Your task to perform on an android device: find photos in the google photos app Image 0: 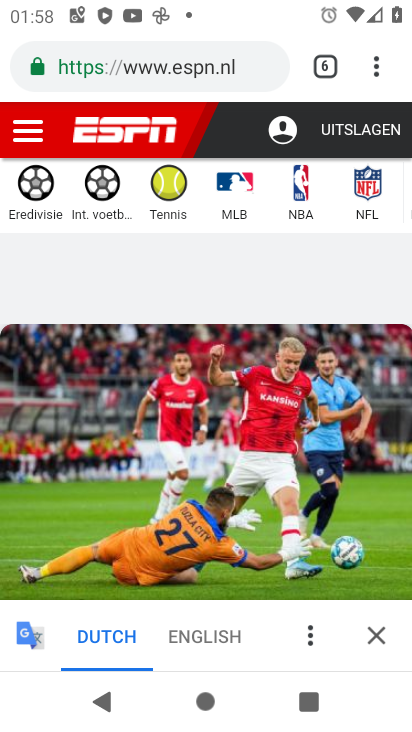
Step 0: press home button
Your task to perform on an android device: find photos in the google photos app Image 1: 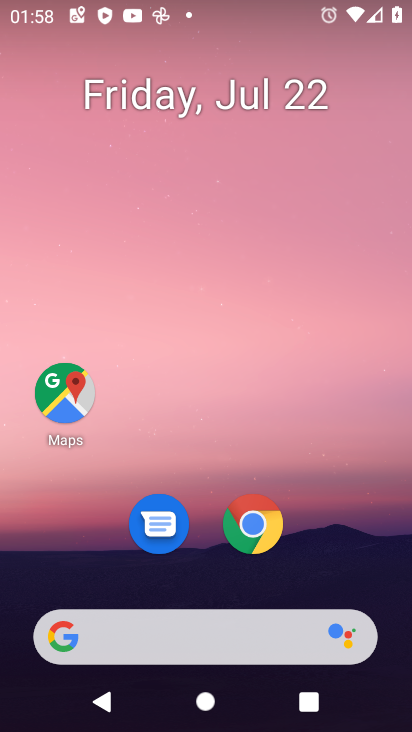
Step 1: drag from (196, 649) to (346, 150)
Your task to perform on an android device: find photos in the google photos app Image 2: 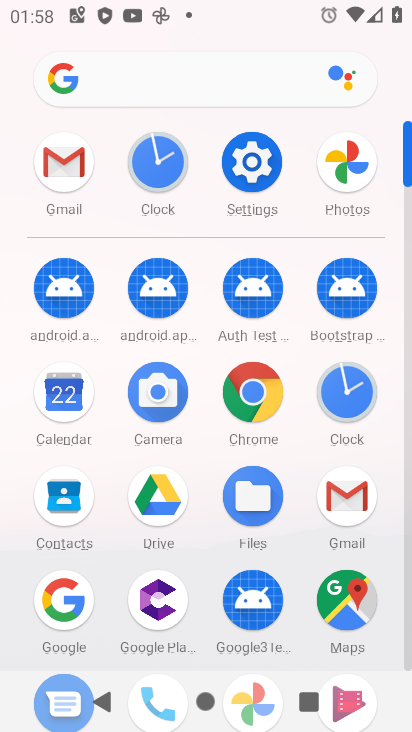
Step 2: click (353, 161)
Your task to perform on an android device: find photos in the google photos app Image 3: 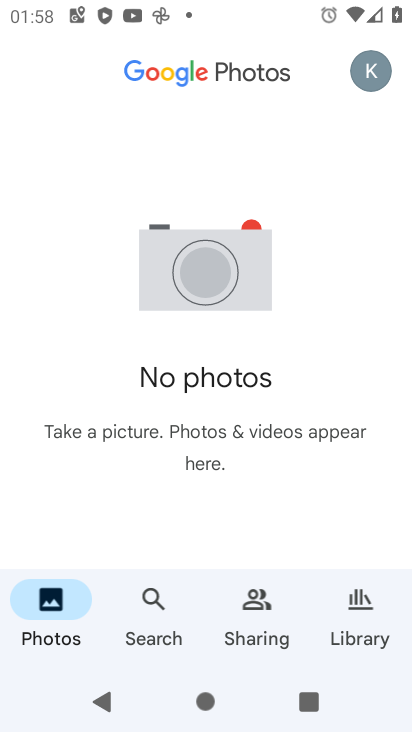
Step 3: task complete